Your task to perform on an android device: open app "Skype" Image 0: 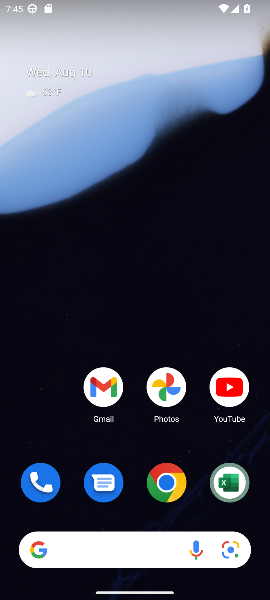
Step 0: drag from (130, 523) to (152, 8)
Your task to perform on an android device: open app "Skype" Image 1: 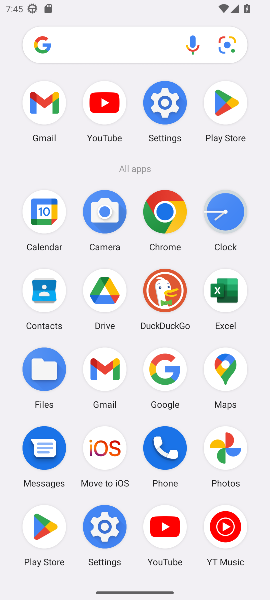
Step 1: click (221, 117)
Your task to perform on an android device: open app "Skype" Image 2: 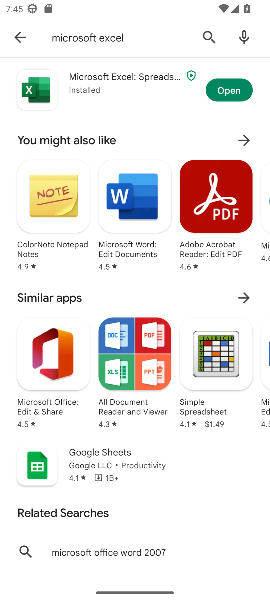
Step 2: click (119, 42)
Your task to perform on an android device: open app "Skype" Image 3: 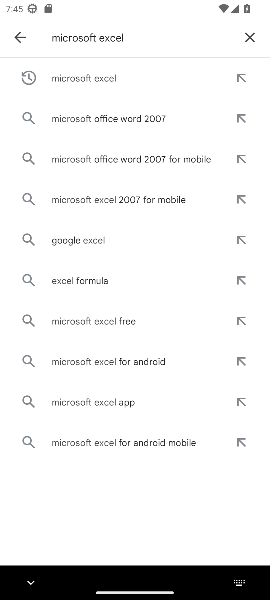
Step 3: click (246, 33)
Your task to perform on an android device: open app "Skype" Image 4: 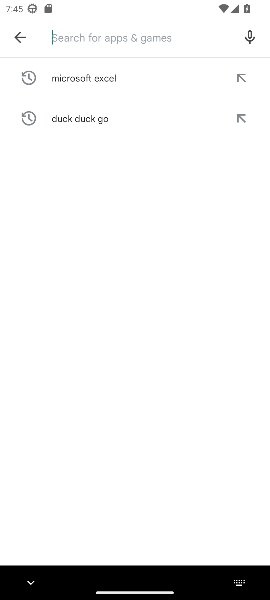
Step 4: type "skype"
Your task to perform on an android device: open app "Skype" Image 5: 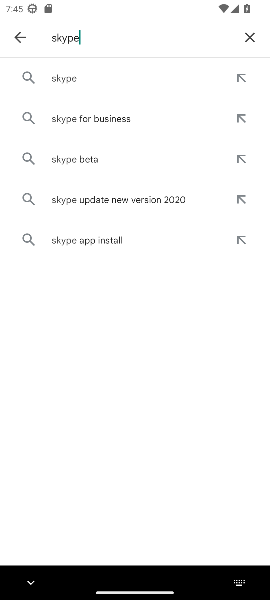
Step 5: click (71, 75)
Your task to perform on an android device: open app "Skype" Image 6: 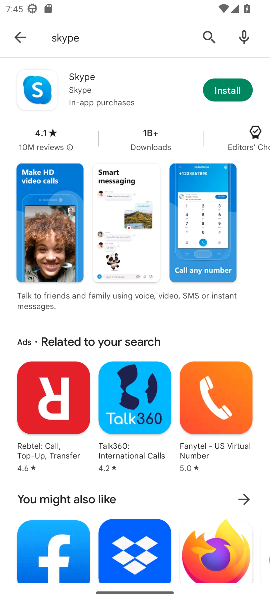
Step 6: task complete